Your task to perform on an android device: Turn off the flashlight Image 0: 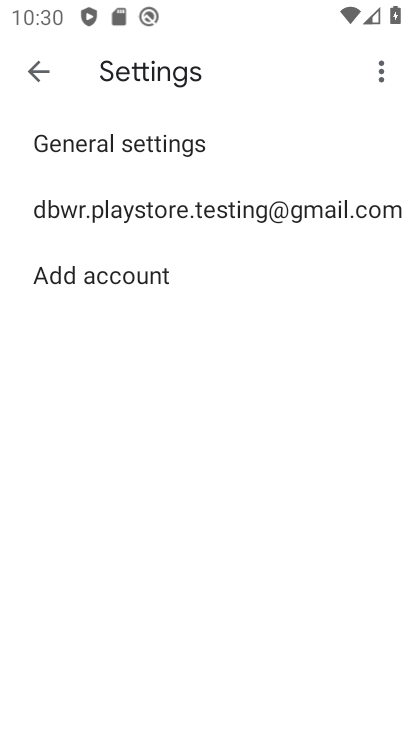
Step 0: press home button
Your task to perform on an android device: Turn off the flashlight Image 1: 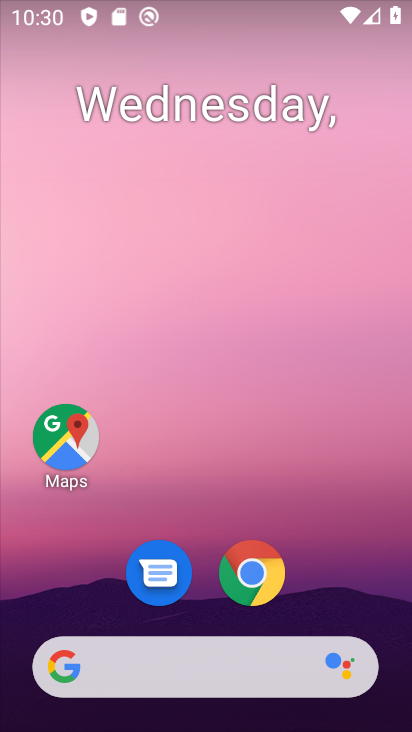
Step 1: drag from (213, 503) to (258, 36)
Your task to perform on an android device: Turn off the flashlight Image 2: 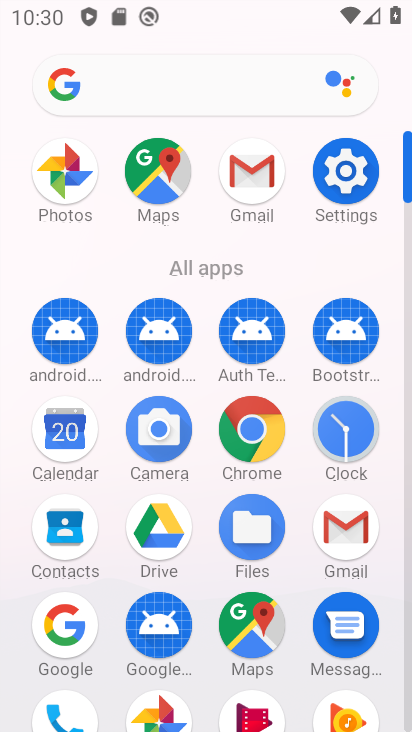
Step 2: click (346, 169)
Your task to perform on an android device: Turn off the flashlight Image 3: 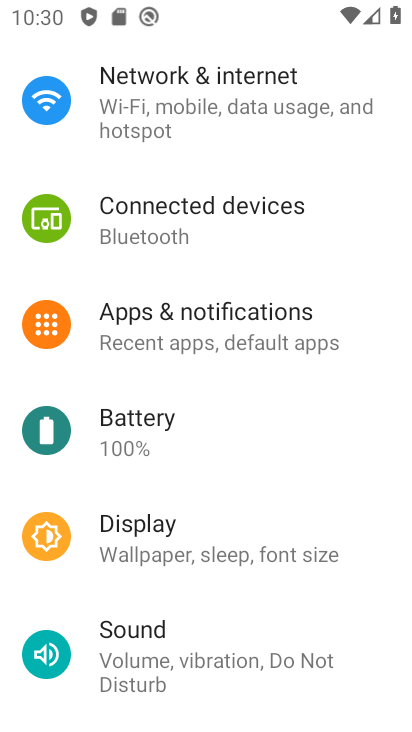
Step 3: drag from (212, 488) to (216, 416)
Your task to perform on an android device: Turn off the flashlight Image 4: 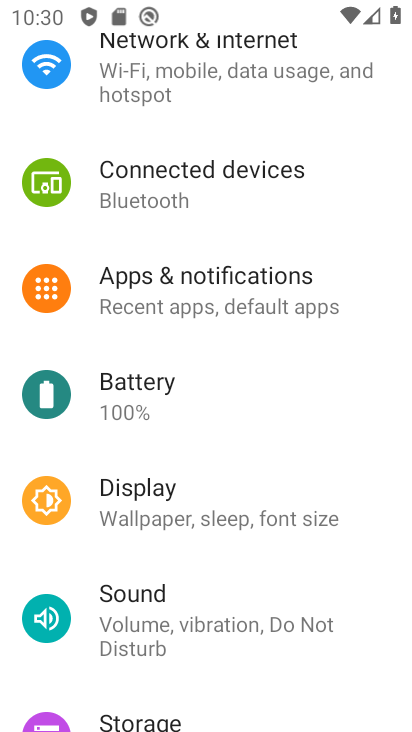
Step 4: click (232, 275)
Your task to perform on an android device: Turn off the flashlight Image 5: 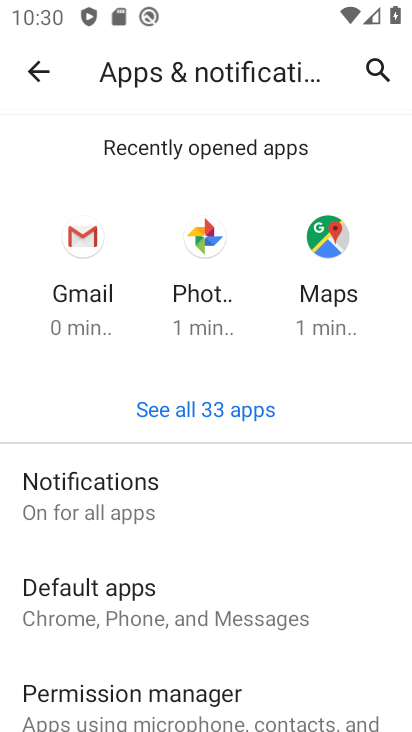
Step 5: drag from (231, 468) to (276, 354)
Your task to perform on an android device: Turn off the flashlight Image 6: 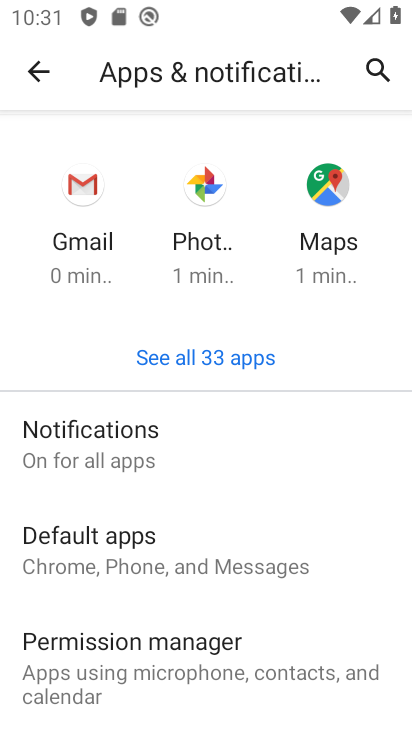
Step 6: drag from (229, 485) to (257, 377)
Your task to perform on an android device: Turn off the flashlight Image 7: 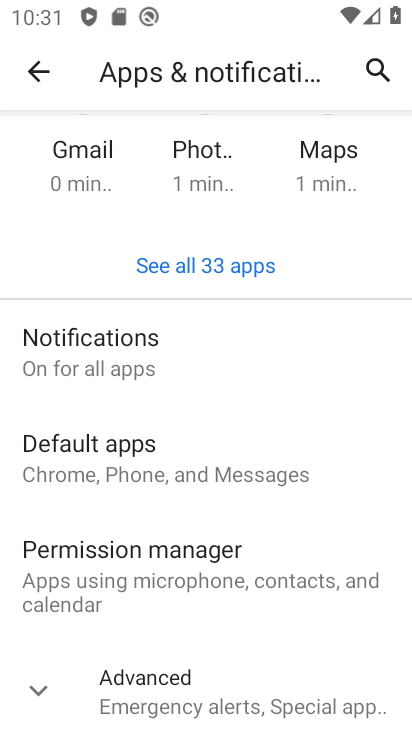
Step 7: drag from (197, 530) to (254, 409)
Your task to perform on an android device: Turn off the flashlight Image 8: 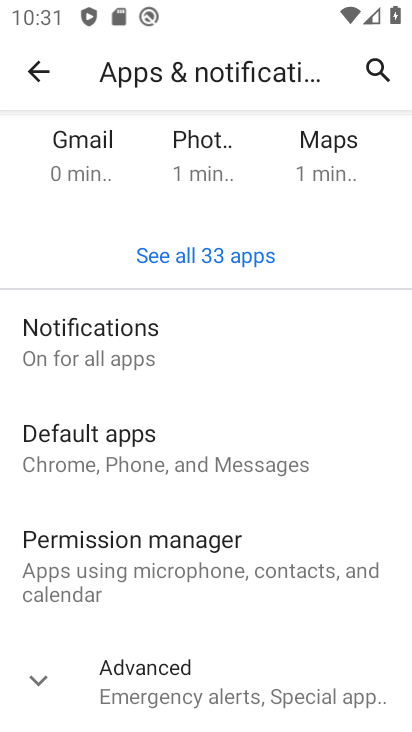
Step 8: click (198, 678)
Your task to perform on an android device: Turn off the flashlight Image 9: 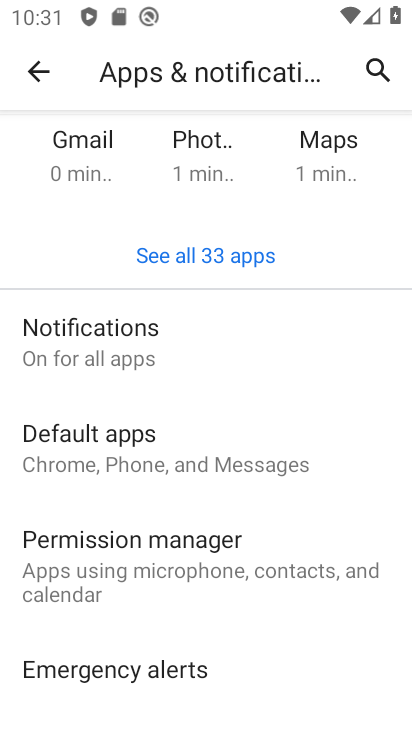
Step 9: press back button
Your task to perform on an android device: Turn off the flashlight Image 10: 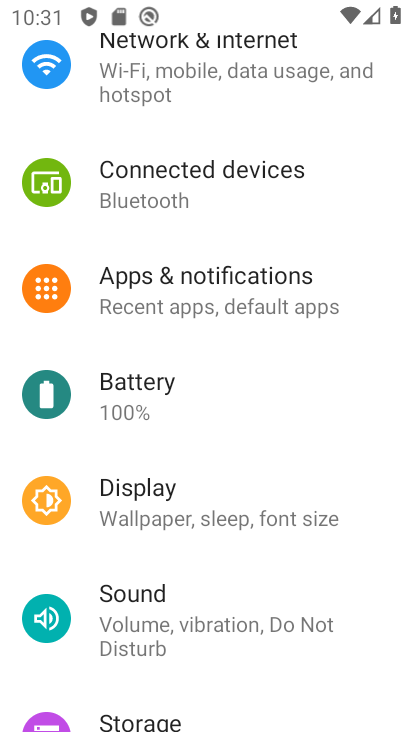
Step 10: drag from (271, 228) to (251, 376)
Your task to perform on an android device: Turn off the flashlight Image 11: 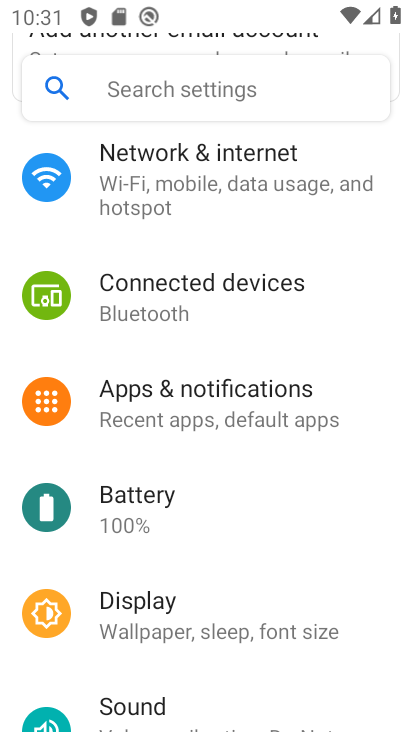
Step 11: drag from (262, 240) to (263, 396)
Your task to perform on an android device: Turn off the flashlight Image 12: 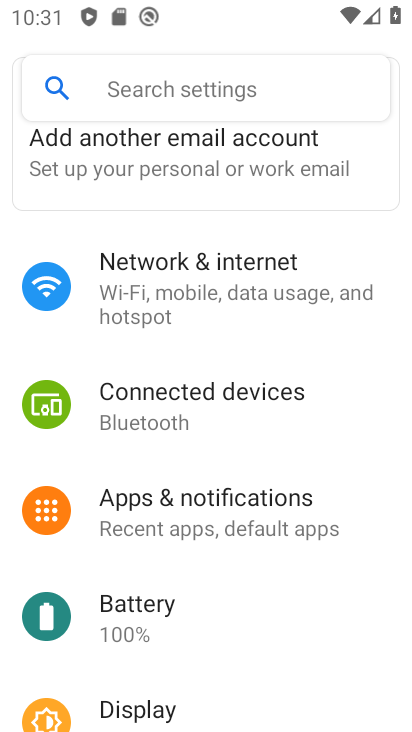
Step 12: drag from (239, 336) to (262, 490)
Your task to perform on an android device: Turn off the flashlight Image 13: 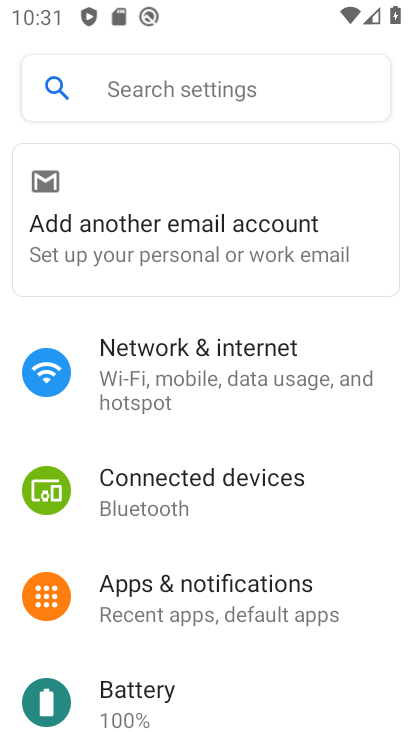
Step 13: press back button
Your task to perform on an android device: Turn off the flashlight Image 14: 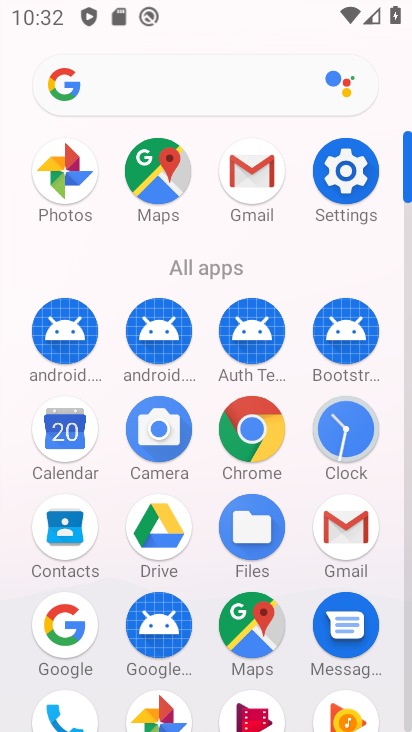
Step 14: click (348, 178)
Your task to perform on an android device: Turn off the flashlight Image 15: 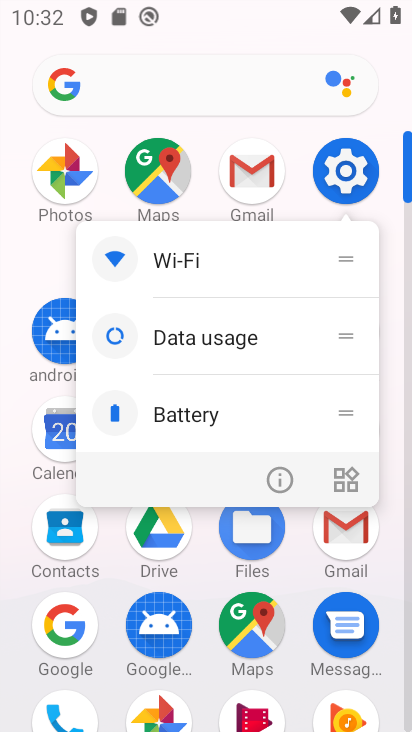
Step 15: click (347, 176)
Your task to perform on an android device: Turn off the flashlight Image 16: 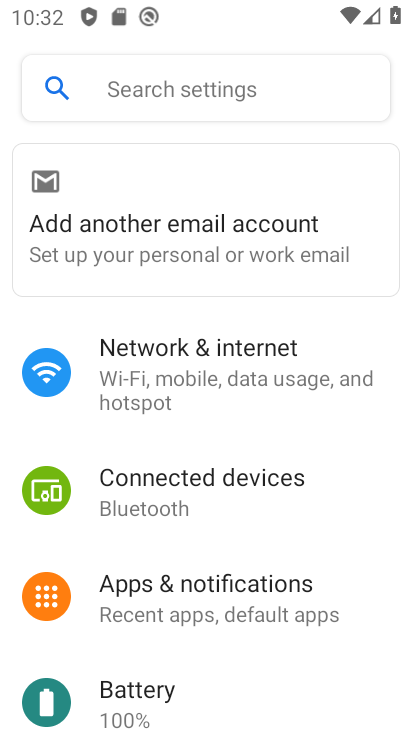
Step 16: drag from (234, 527) to (291, 403)
Your task to perform on an android device: Turn off the flashlight Image 17: 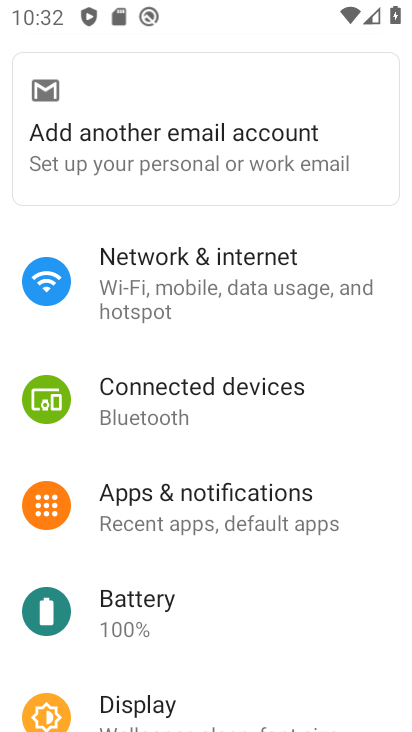
Step 17: drag from (237, 598) to (290, 469)
Your task to perform on an android device: Turn off the flashlight Image 18: 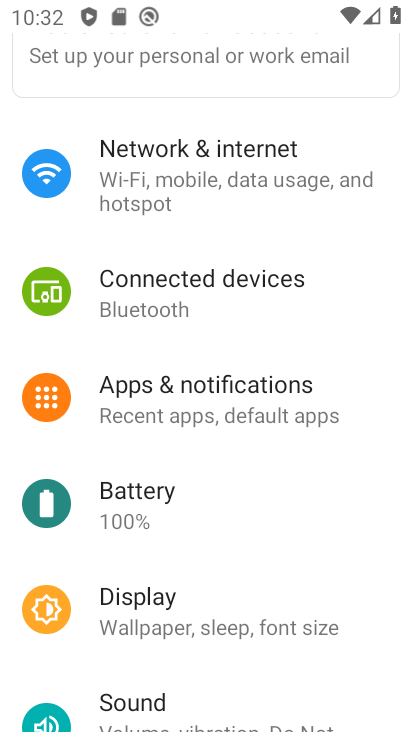
Step 18: click (232, 621)
Your task to perform on an android device: Turn off the flashlight Image 19: 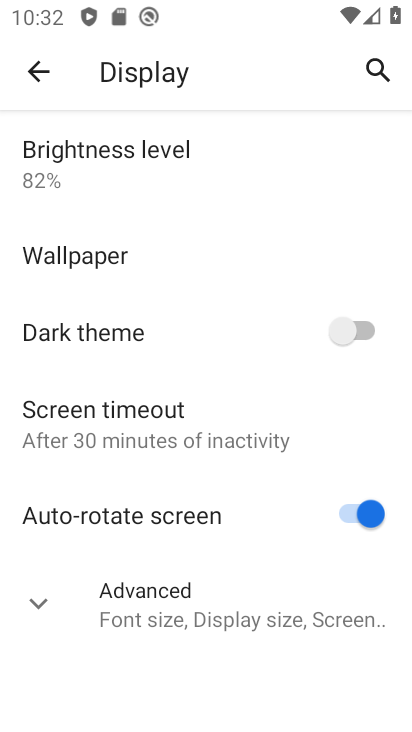
Step 19: click (256, 605)
Your task to perform on an android device: Turn off the flashlight Image 20: 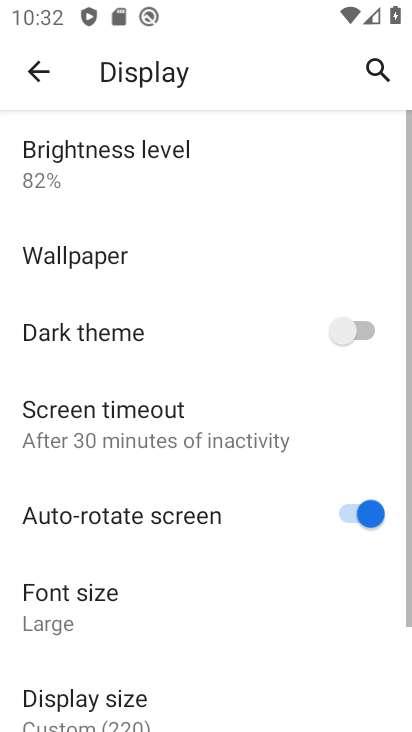
Step 20: task complete